Your task to perform on an android device: Play the last video I watched on Youtube Image 0: 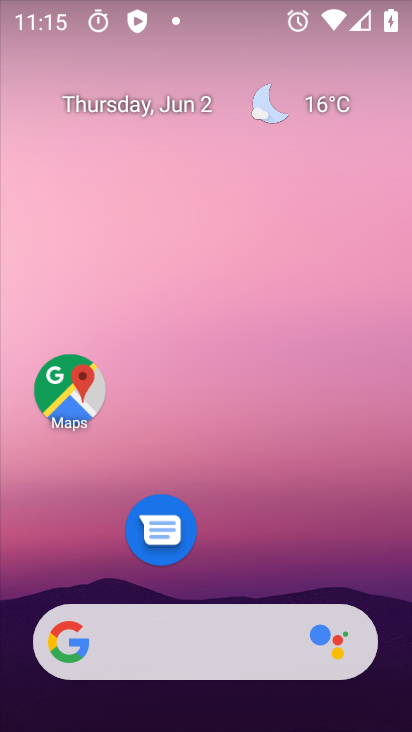
Step 0: drag from (252, 525) to (205, 8)
Your task to perform on an android device: Play the last video I watched on Youtube Image 1: 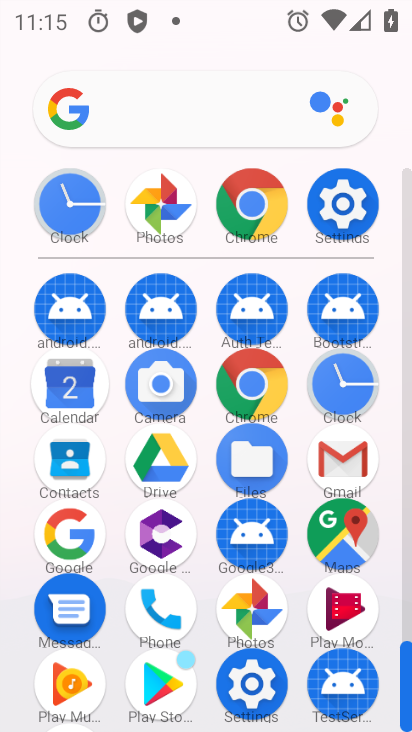
Step 1: drag from (210, 400) to (194, 175)
Your task to perform on an android device: Play the last video I watched on Youtube Image 2: 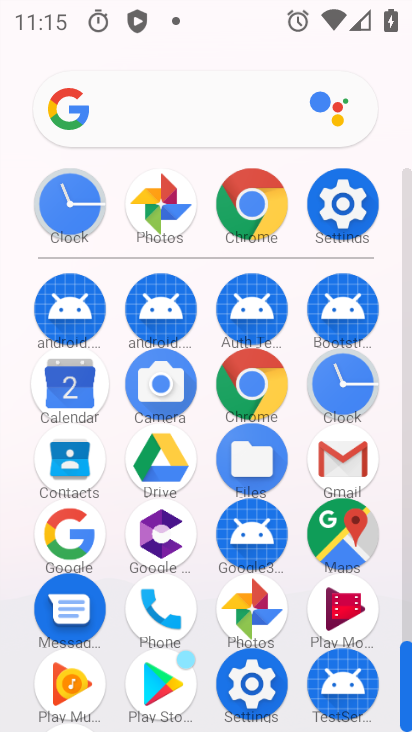
Step 2: drag from (218, 553) to (193, 149)
Your task to perform on an android device: Play the last video I watched on Youtube Image 3: 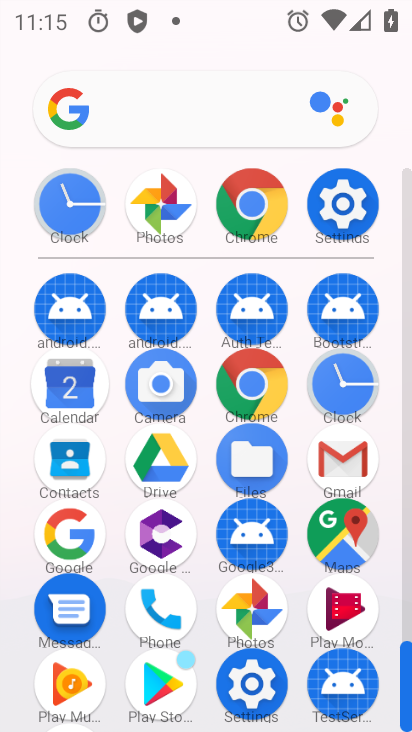
Step 3: drag from (204, 506) to (176, 219)
Your task to perform on an android device: Play the last video I watched on Youtube Image 4: 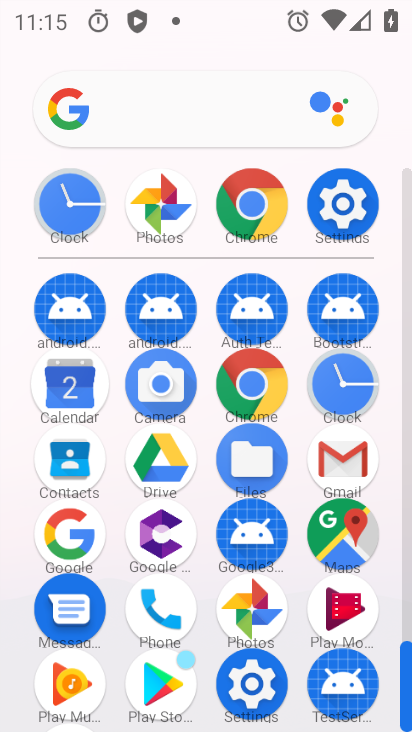
Step 4: drag from (183, 504) to (140, 85)
Your task to perform on an android device: Play the last video I watched on Youtube Image 5: 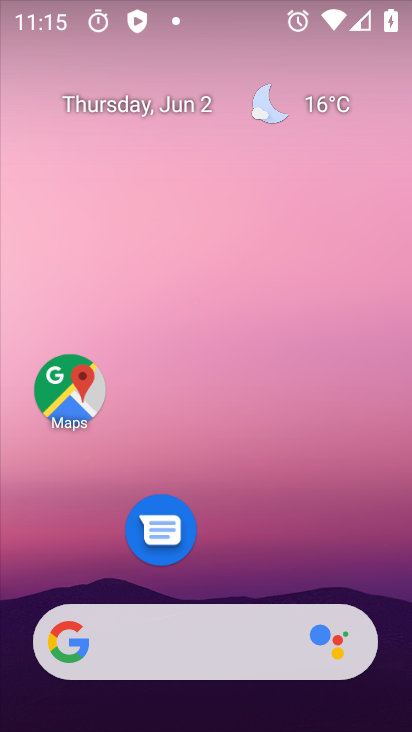
Step 5: drag from (258, 679) to (208, 76)
Your task to perform on an android device: Play the last video I watched on Youtube Image 6: 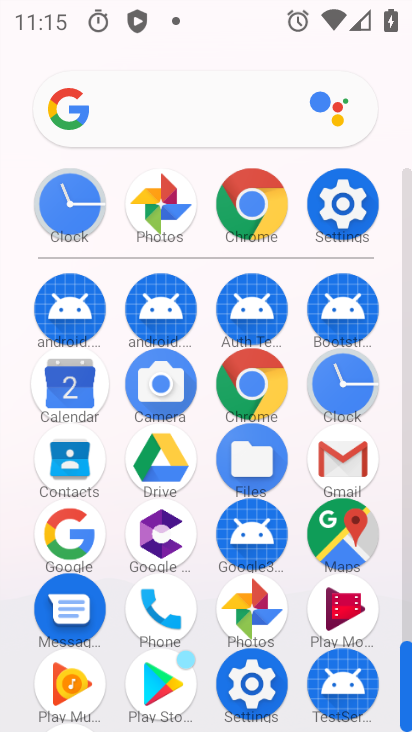
Step 6: drag from (214, 549) to (209, 120)
Your task to perform on an android device: Play the last video I watched on Youtube Image 7: 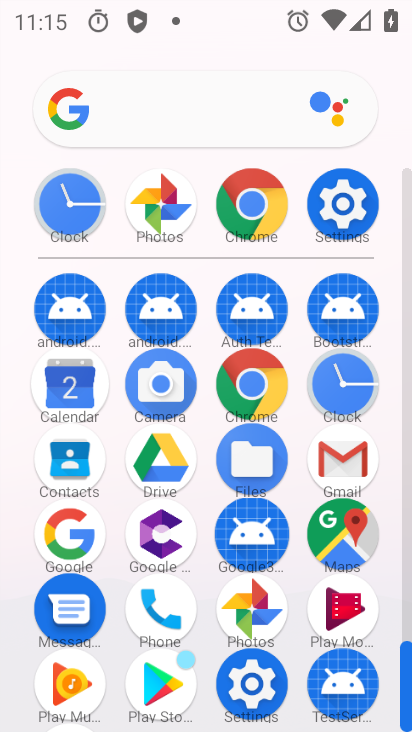
Step 7: drag from (230, 483) to (190, 49)
Your task to perform on an android device: Play the last video I watched on Youtube Image 8: 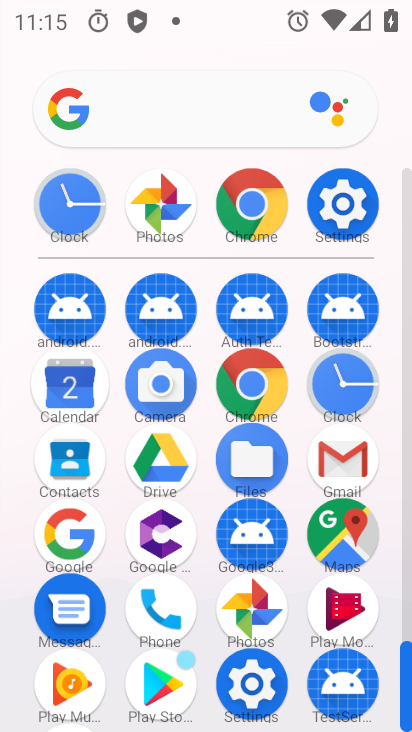
Step 8: drag from (223, 414) to (207, 57)
Your task to perform on an android device: Play the last video I watched on Youtube Image 9: 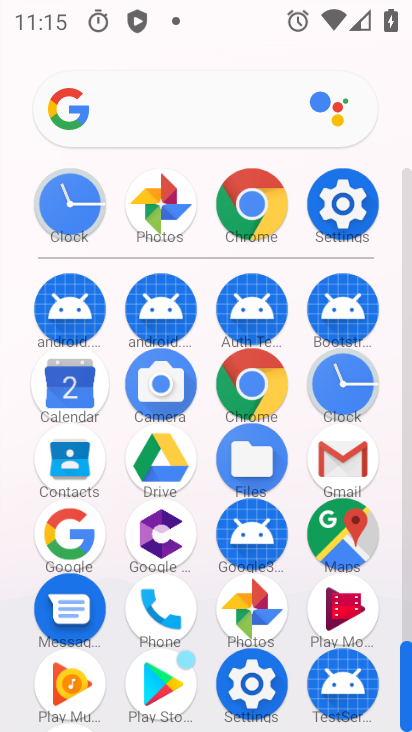
Step 9: drag from (248, 612) to (197, 239)
Your task to perform on an android device: Play the last video I watched on Youtube Image 10: 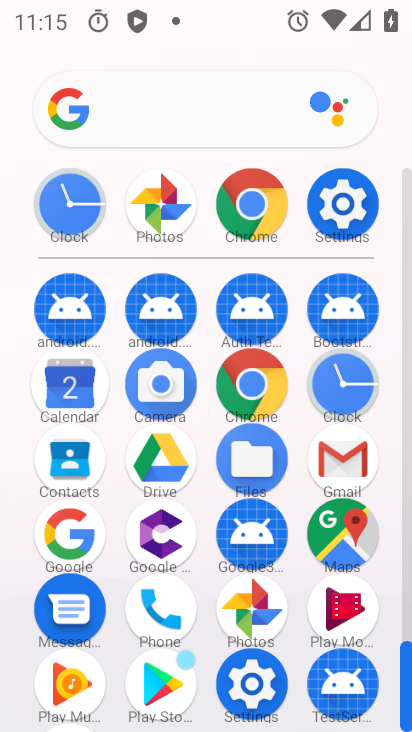
Step 10: drag from (205, 599) to (194, 109)
Your task to perform on an android device: Play the last video I watched on Youtube Image 11: 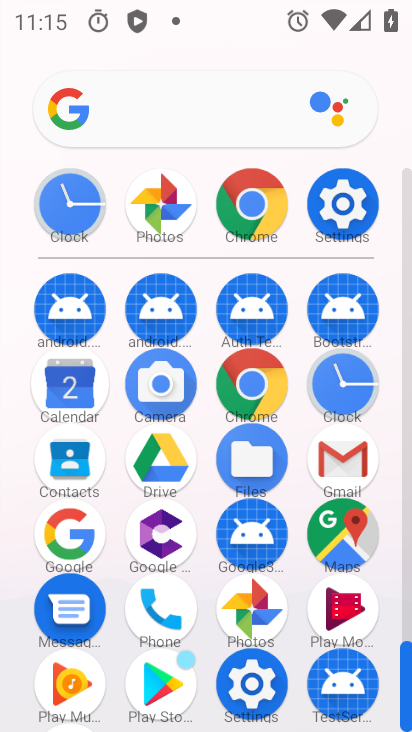
Step 11: drag from (222, 587) to (243, 543)
Your task to perform on an android device: Play the last video I watched on Youtube Image 12: 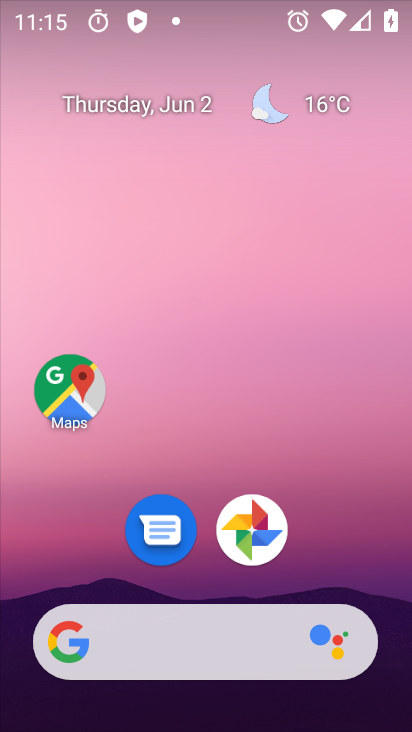
Step 12: press back button
Your task to perform on an android device: Play the last video I watched on Youtube Image 13: 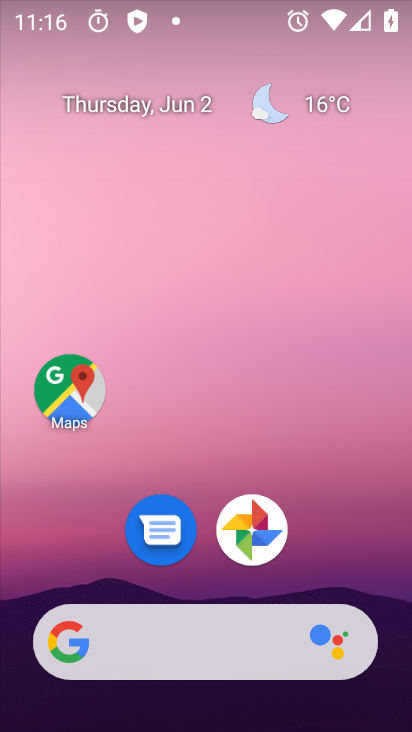
Step 13: drag from (271, 684) to (162, 135)
Your task to perform on an android device: Play the last video I watched on Youtube Image 14: 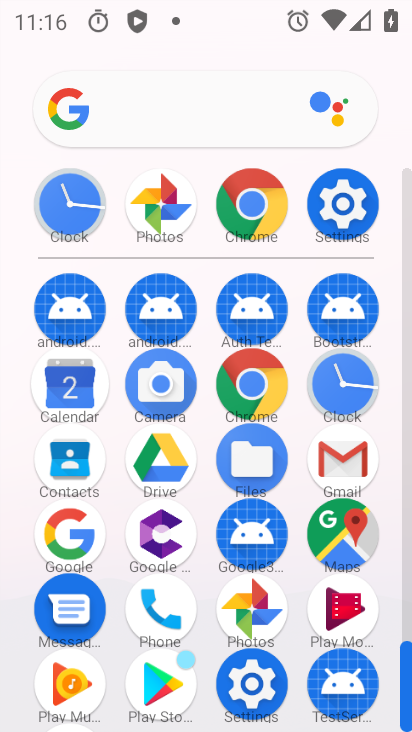
Step 14: drag from (220, 685) to (109, 36)
Your task to perform on an android device: Play the last video I watched on Youtube Image 15: 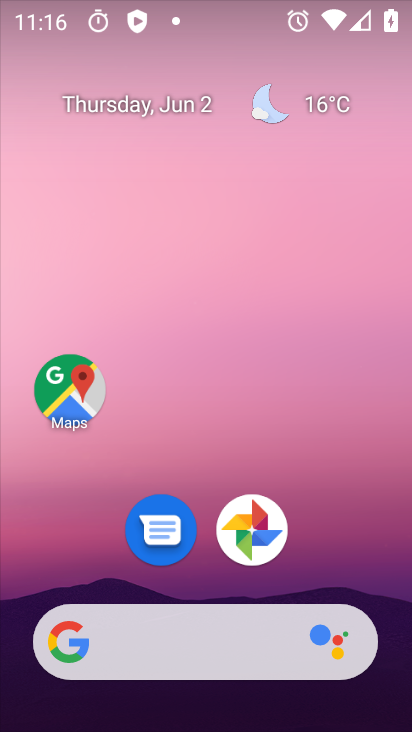
Step 15: drag from (249, 687) to (161, 105)
Your task to perform on an android device: Play the last video I watched on Youtube Image 16: 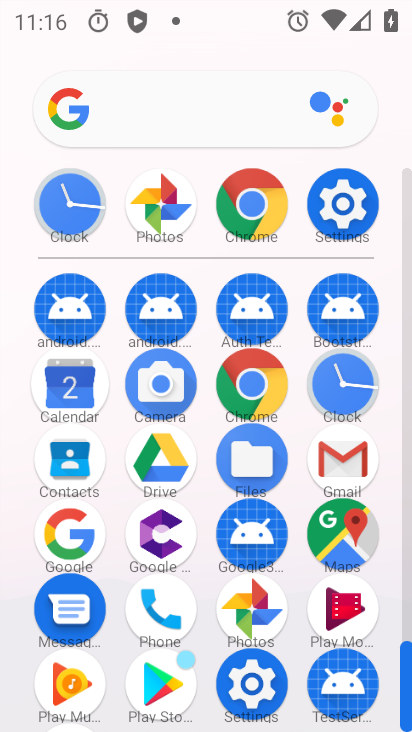
Step 16: drag from (207, 599) to (199, 209)
Your task to perform on an android device: Play the last video I watched on Youtube Image 17: 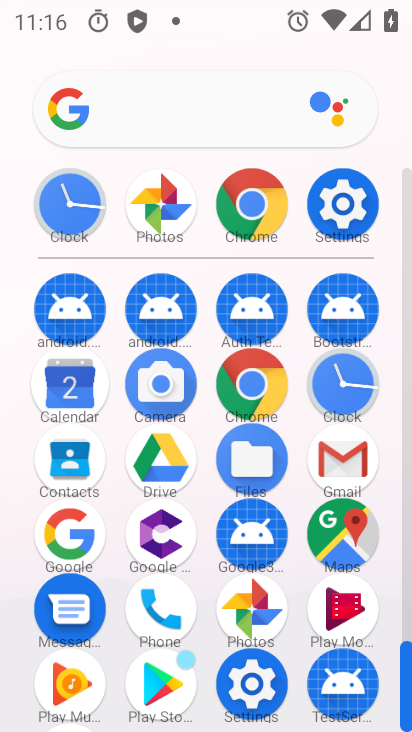
Step 17: drag from (246, 482) to (203, 150)
Your task to perform on an android device: Play the last video I watched on Youtube Image 18: 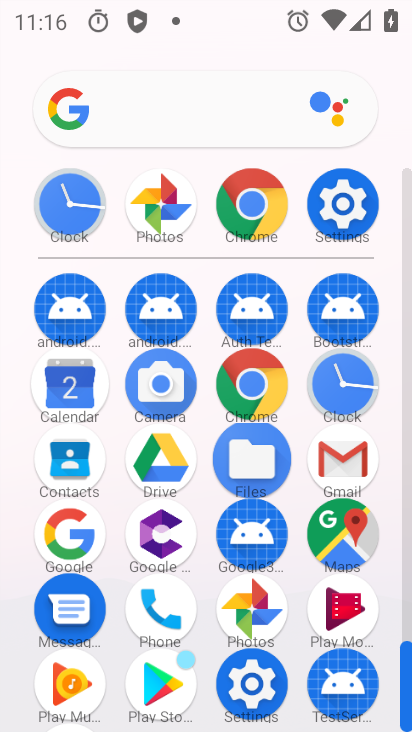
Step 18: drag from (224, 502) to (205, 285)
Your task to perform on an android device: Play the last video I watched on Youtube Image 19: 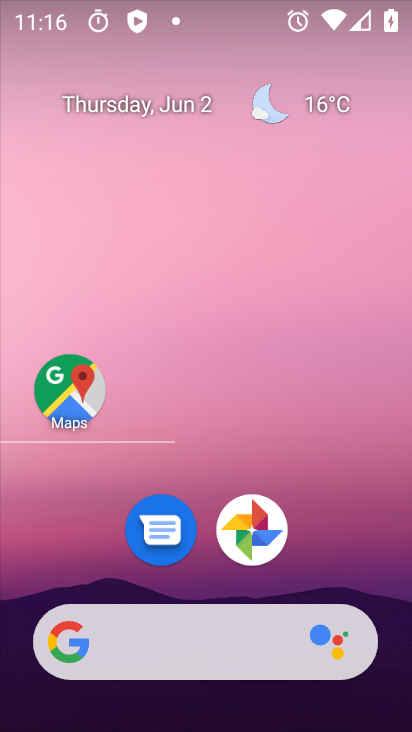
Step 19: drag from (179, 246) to (241, 683)
Your task to perform on an android device: Play the last video I watched on Youtube Image 20: 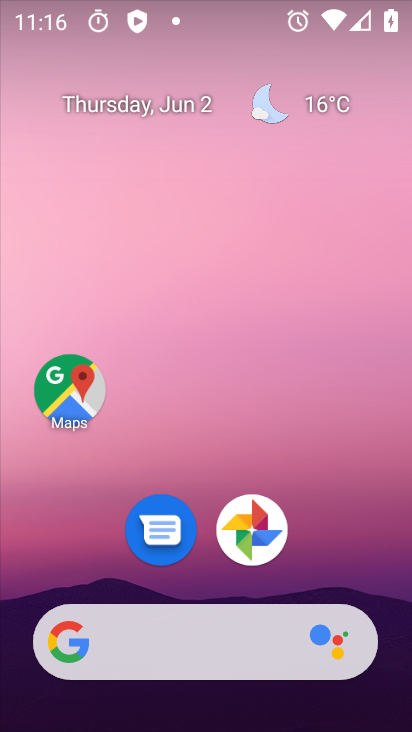
Step 20: drag from (236, 626) to (220, 270)
Your task to perform on an android device: Play the last video I watched on Youtube Image 21: 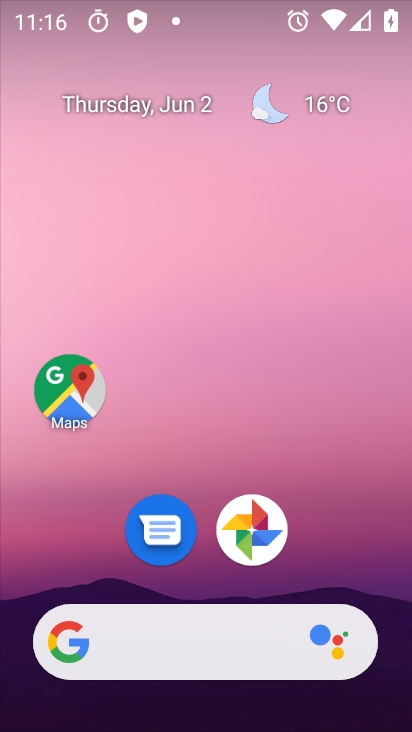
Step 21: drag from (238, 571) to (209, 153)
Your task to perform on an android device: Play the last video I watched on Youtube Image 22: 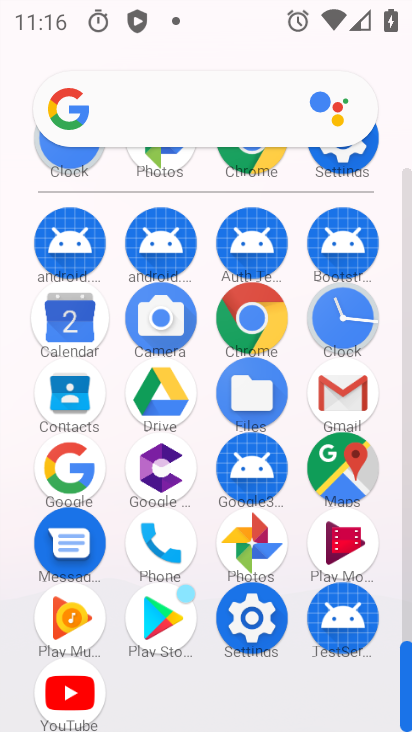
Step 22: drag from (227, 422) to (159, 186)
Your task to perform on an android device: Play the last video I watched on Youtube Image 23: 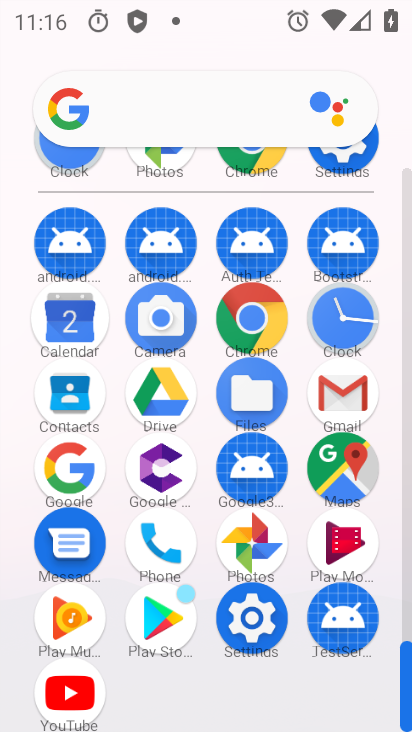
Step 23: click (58, 655)
Your task to perform on an android device: Play the last video I watched on Youtube Image 24: 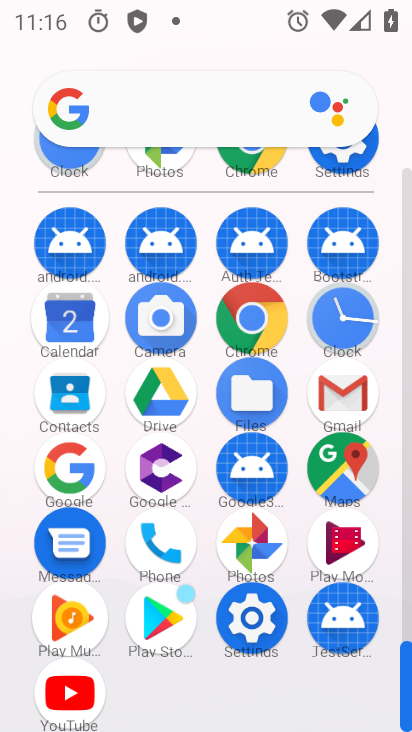
Step 24: click (60, 658)
Your task to perform on an android device: Play the last video I watched on Youtube Image 25: 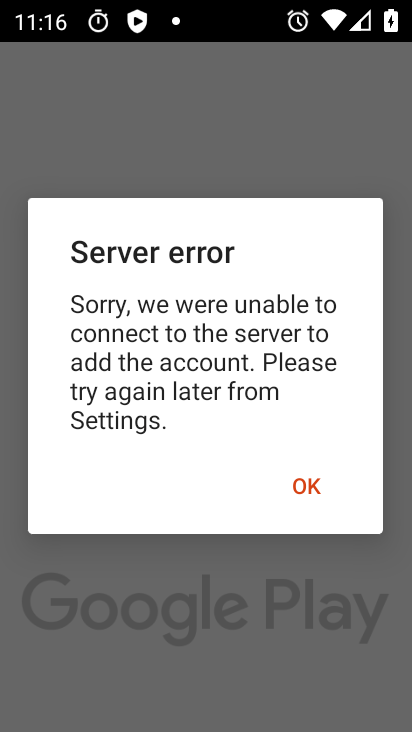
Step 25: click (315, 486)
Your task to perform on an android device: Play the last video I watched on Youtube Image 26: 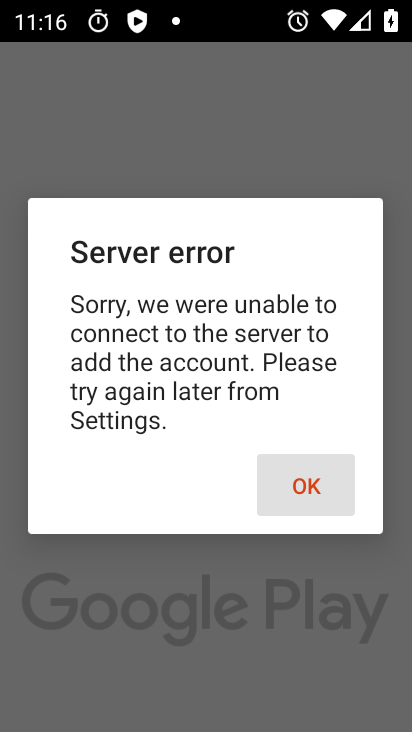
Step 26: click (315, 486)
Your task to perform on an android device: Play the last video I watched on Youtube Image 27: 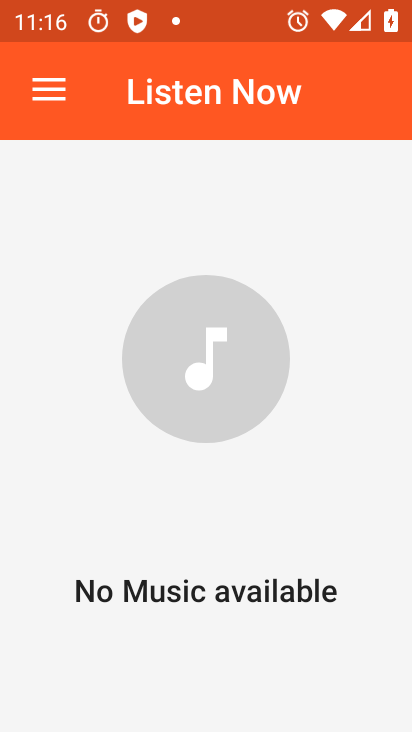
Step 27: task complete